Your task to perform on an android device: Open calendar and show me the first week of next month Image 0: 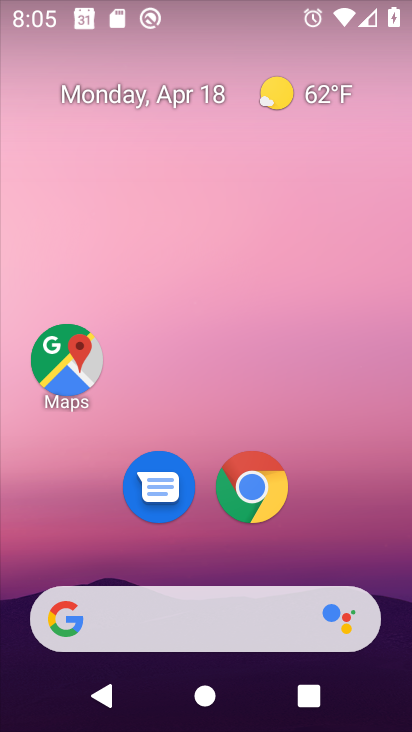
Step 0: drag from (214, 551) to (260, 112)
Your task to perform on an android device: Open calendar and show me the first week of next month Image 1: 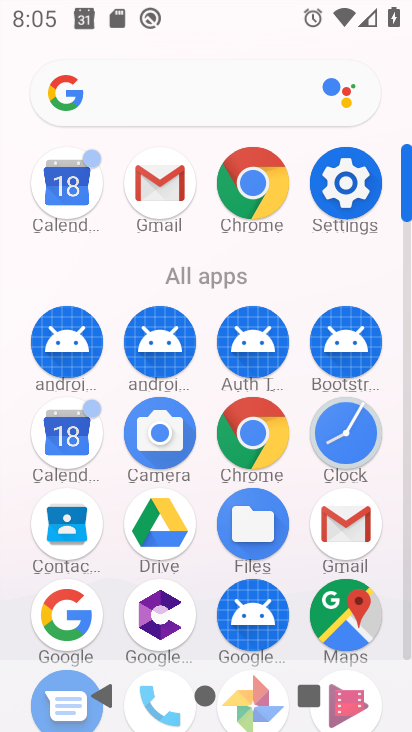
Step 1: click (67, 434)
Your task to perform on an android device: Open calendar and show me the first week of next month Image 2: 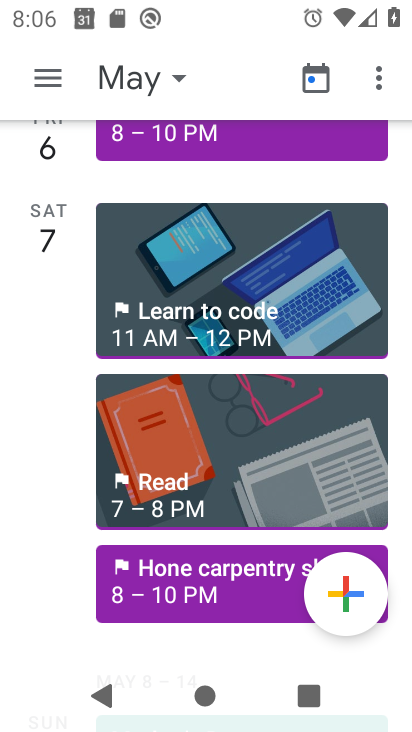
Step 2: click (43, 70)
Your task to perform on an android device: Open calendar and show me the first week of next month Image 3: 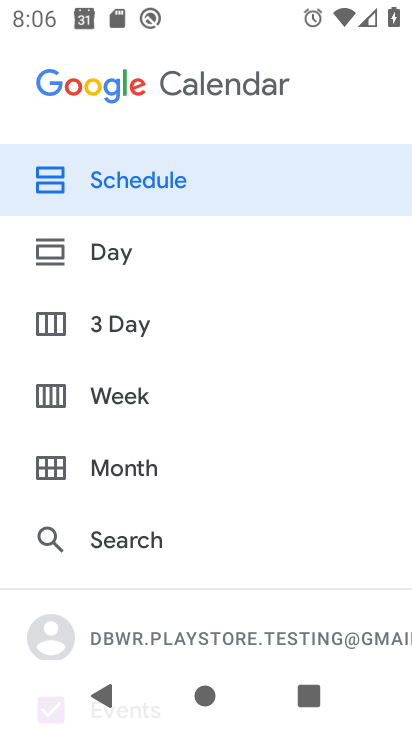
Step 3: click (72, 385)
Your task to perform on an android device: Open calendar and show me the first week of next month Image 4: 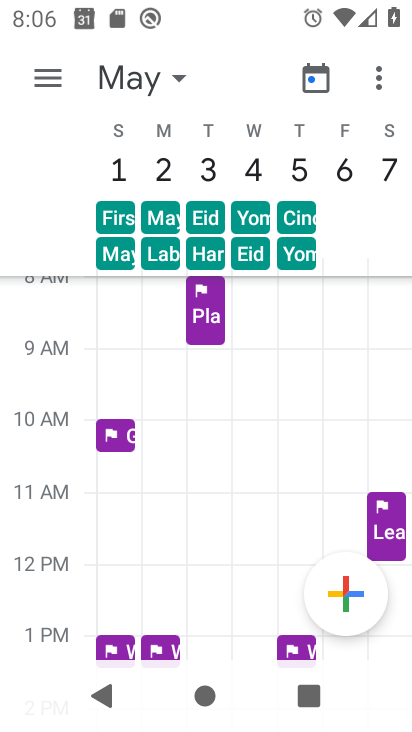
Step 4: click (122, 159)
Your task to perform on an android device: Open calendar and show me the first week of next month Image 5: 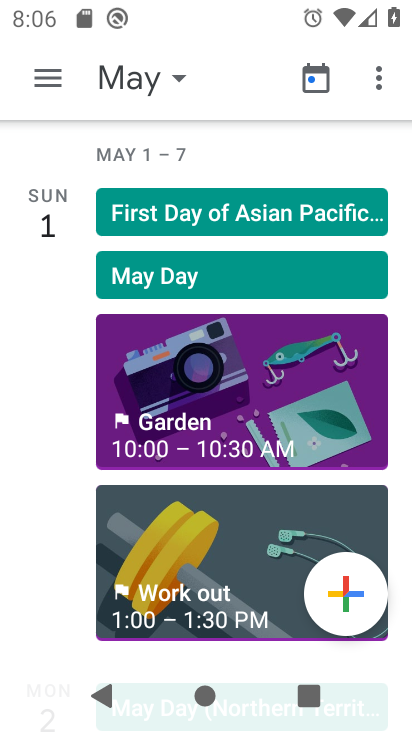
Step 5: task complete